Your task to perform on an android device: read, delete, or share a saved page in the chrome app Image 0: 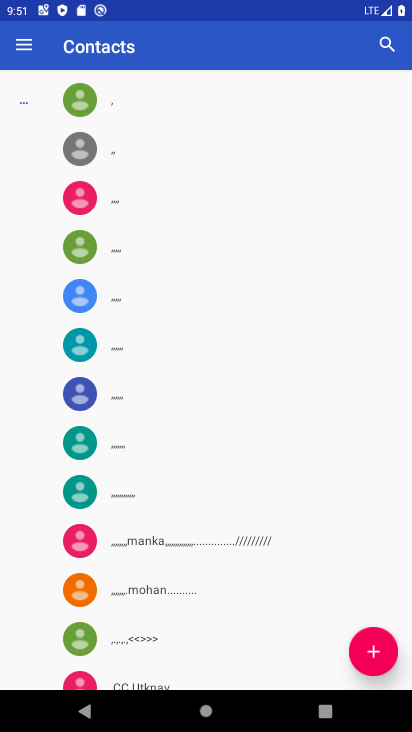
Step 0: press home button
Your task to perform on an android device: read, delete, or share a saved page in the chrome app Image 1: 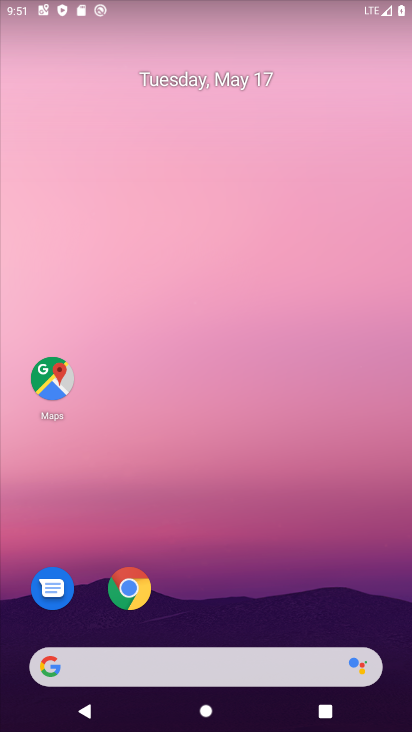
Step 1: drag from (204, 647) to (388, 68)
Your task to perform on an android device: read, delete, or share a saved page in the chrome app Image 2: 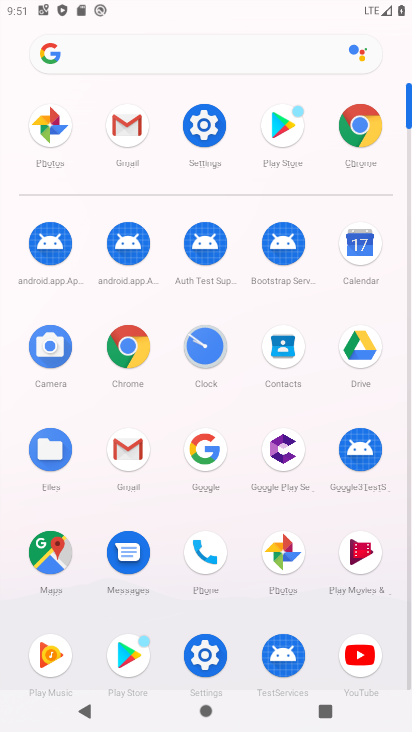
Step 2: click (127, 354)
Your task to perform on an android device: read, delete, or share a saved page in the chrome app Image 3: 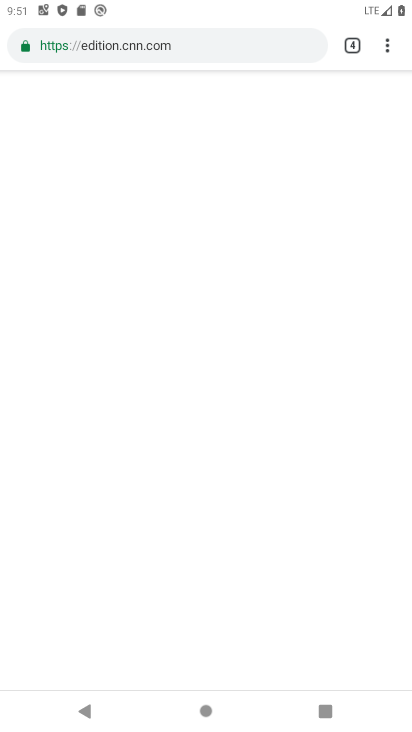
Step 3: click (383, 51)
Your task to perform on an android device: read, delete, or share a saved page in the chrome app Image 4: 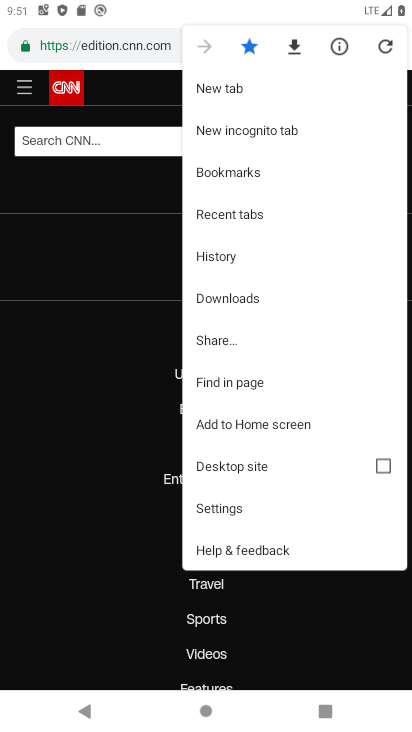
Step 4: click (223, 284)
Your task to perform on an android device: read, delete, or share a saved page in the chrome app Image 5: 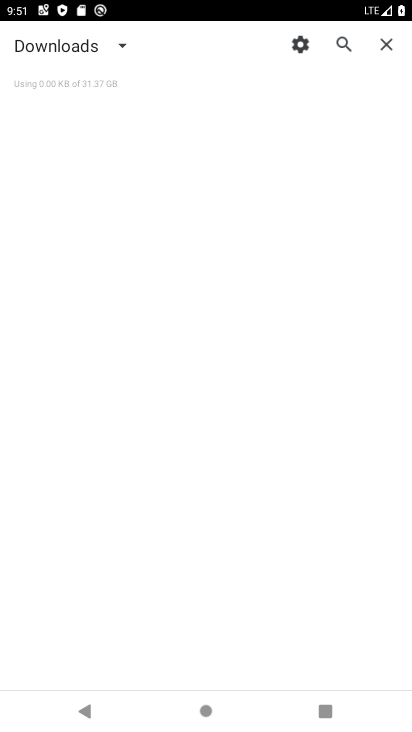
Step 5: task complete